Your task to perform on an android device: toggle priority inbox in the gmail app Image 0: 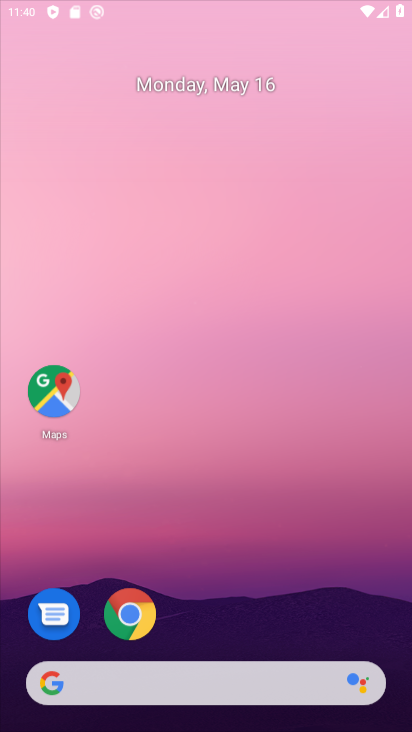
Step 0: click (143, 608)
Your task to perform on an android device: toggle priority inbox in the gmail app Image 1: 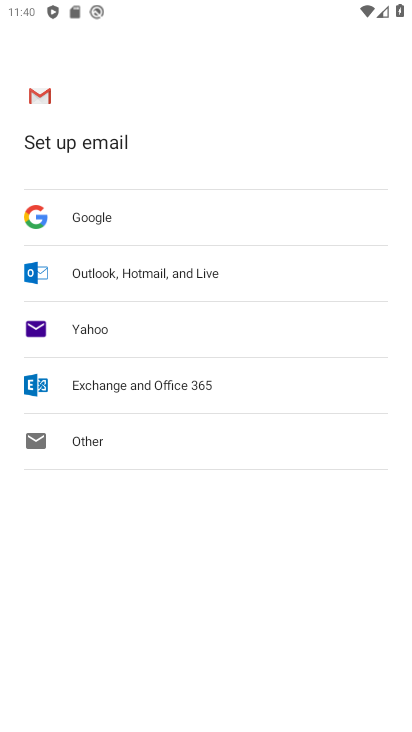
Step 1: press home button
Your task to perform on an android device: toggle priority inbox in the gmail app Image 2: 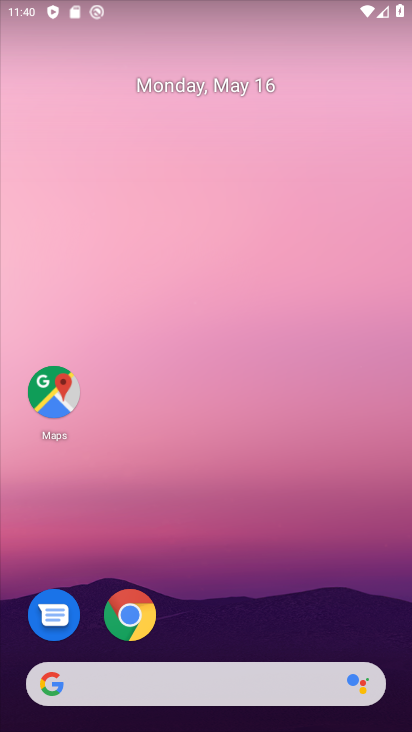
Step 2: drag from (202, 591) to (213, 266)
Your task to perform on an android device: toggle priority inbox in the gmail app Image 3: 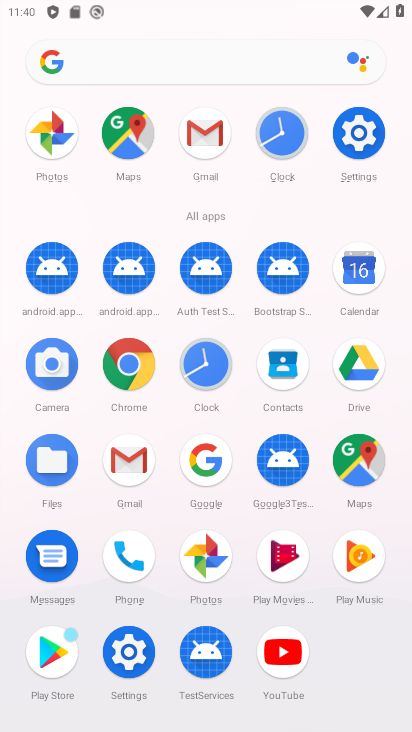
Step 3: click (212, 167)
Your task to perform on an android device: toggle priority inbox in the gmail app Image 4: 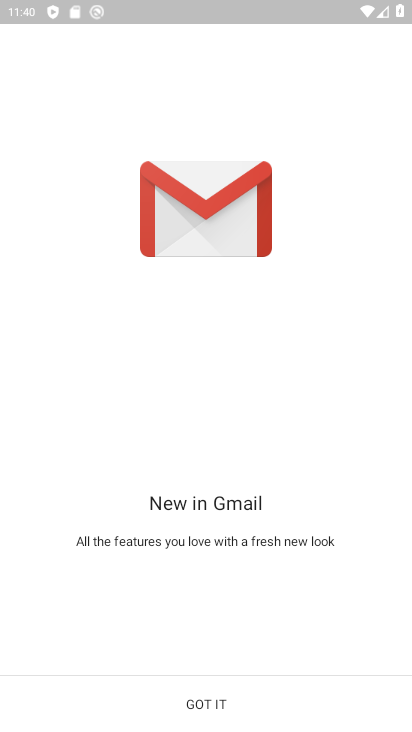
Step 4: click (299, 684)
Your task to perform on an android device: toggle priority inbox in the gmail app Image 5: 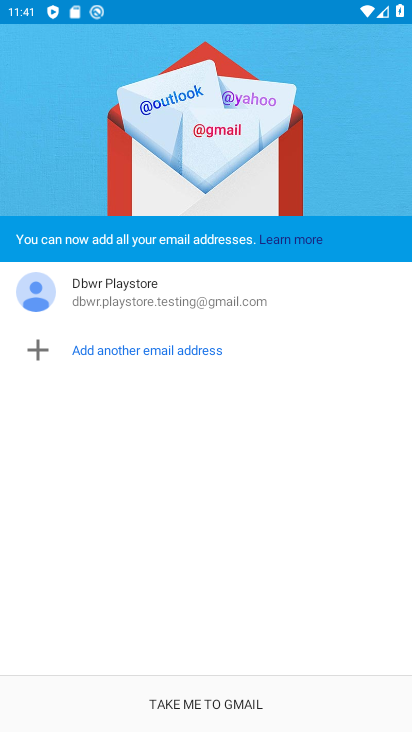
Step 5: click (246, 708)
Your task to perform on an android device: toggle priority inbox in the gmail app Image 6: 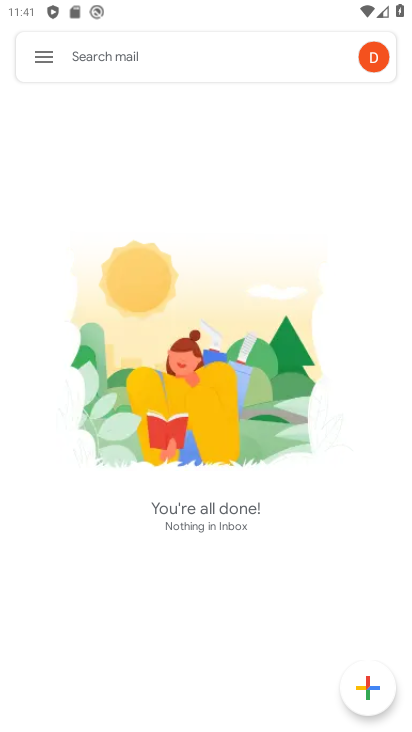
Step 6: click (52, 57)
Your task to perform on an android device: toggle priority inbox in the gmail app Image 7: 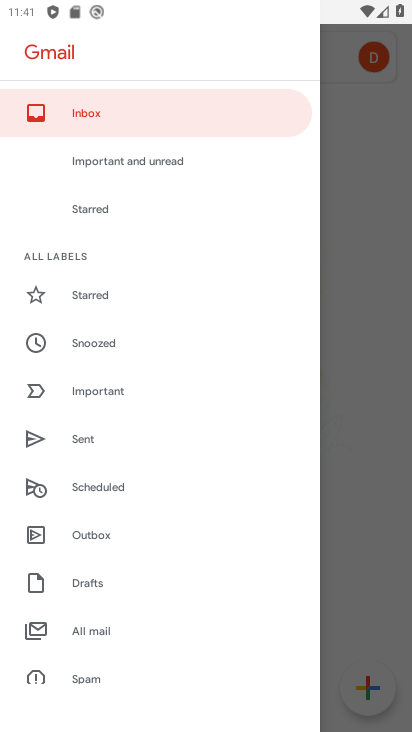
Step 7: drag from (73, 611) to (74, 446)
Your task to perform on an android device: toggle priority inbox in the gmail app Image 8: 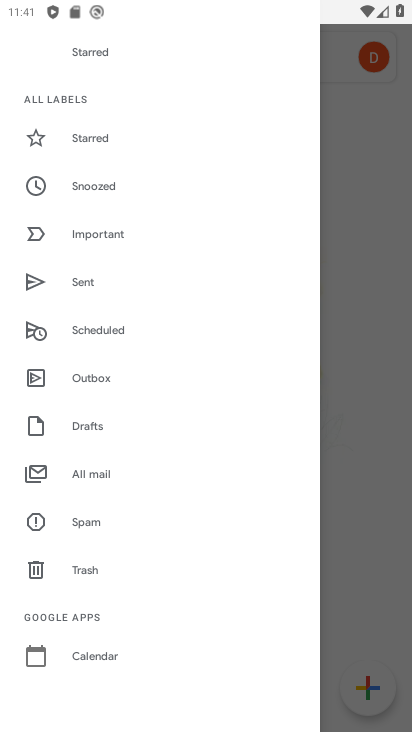
Step 8: drag from (105, 619) to (109, 267)
Your task to perform on an android device: toggle priority inbox in the gmail app Image 9: 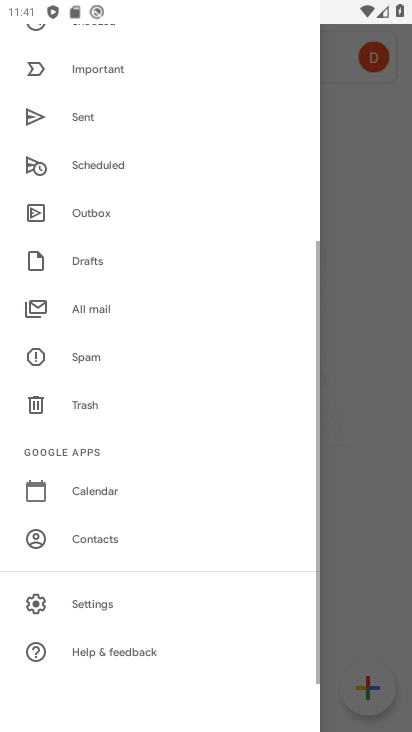
Step 9: click (99, 599)
Your task to perform on an android device: toggle priority inbox in the gmail app Image 10: 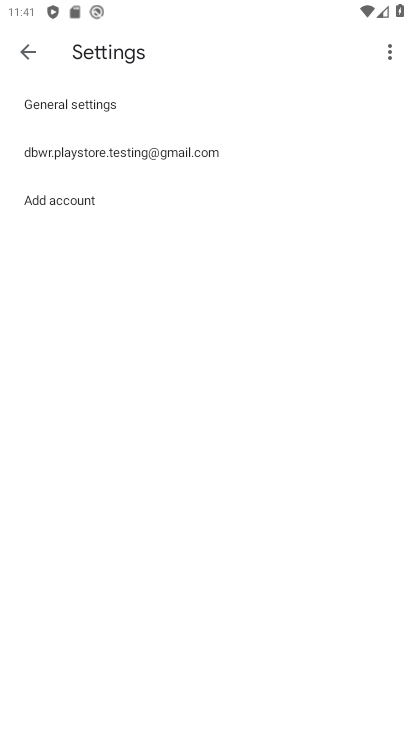
Step 10: click (117, 141)
Your task to perform on an android device: toggle priority inbox in the gmail app Image 11: 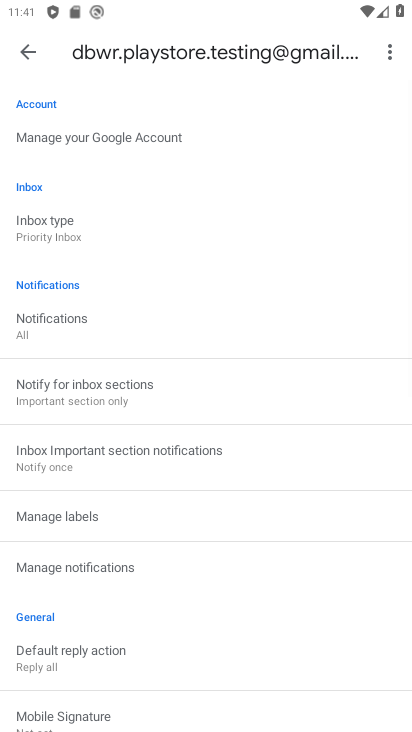
Step 11: click (124, 224)
Your task to perform on an android device: toggle priority inbox in the gmail app Image 12: 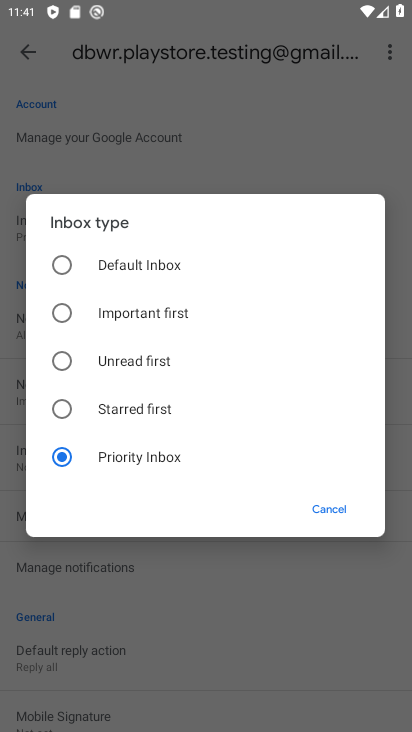
Step 12: click (147, 452)
Your task to perform on an android device: toggle priority inbox in the gmail app Image 13: 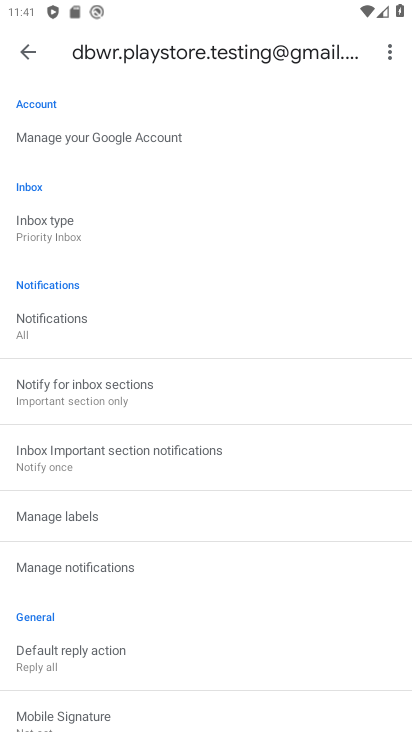
Step 13: task complete